Your task to perform on an android device: open app "Grab" Image 0: 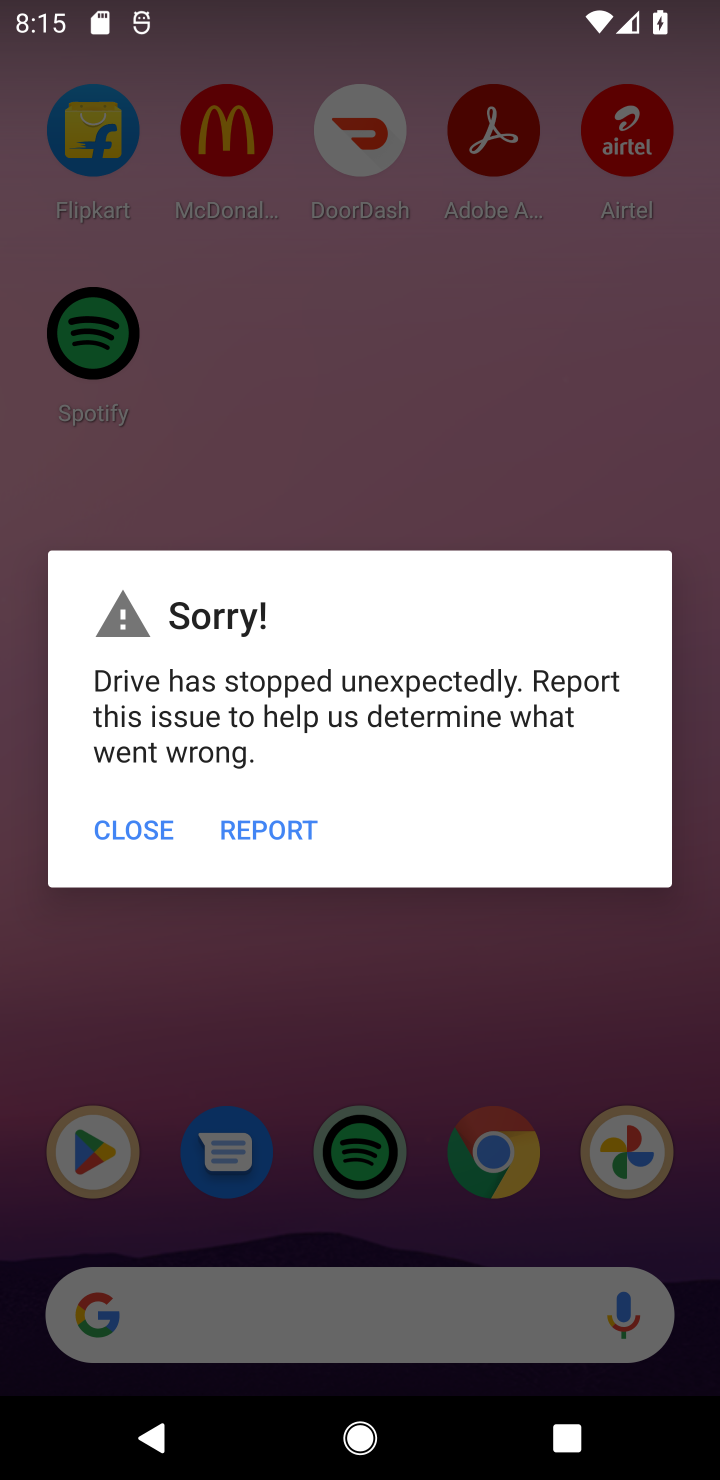
Step 0: press home button
Your task to perform on an android device: open app "Grab" Image 1: 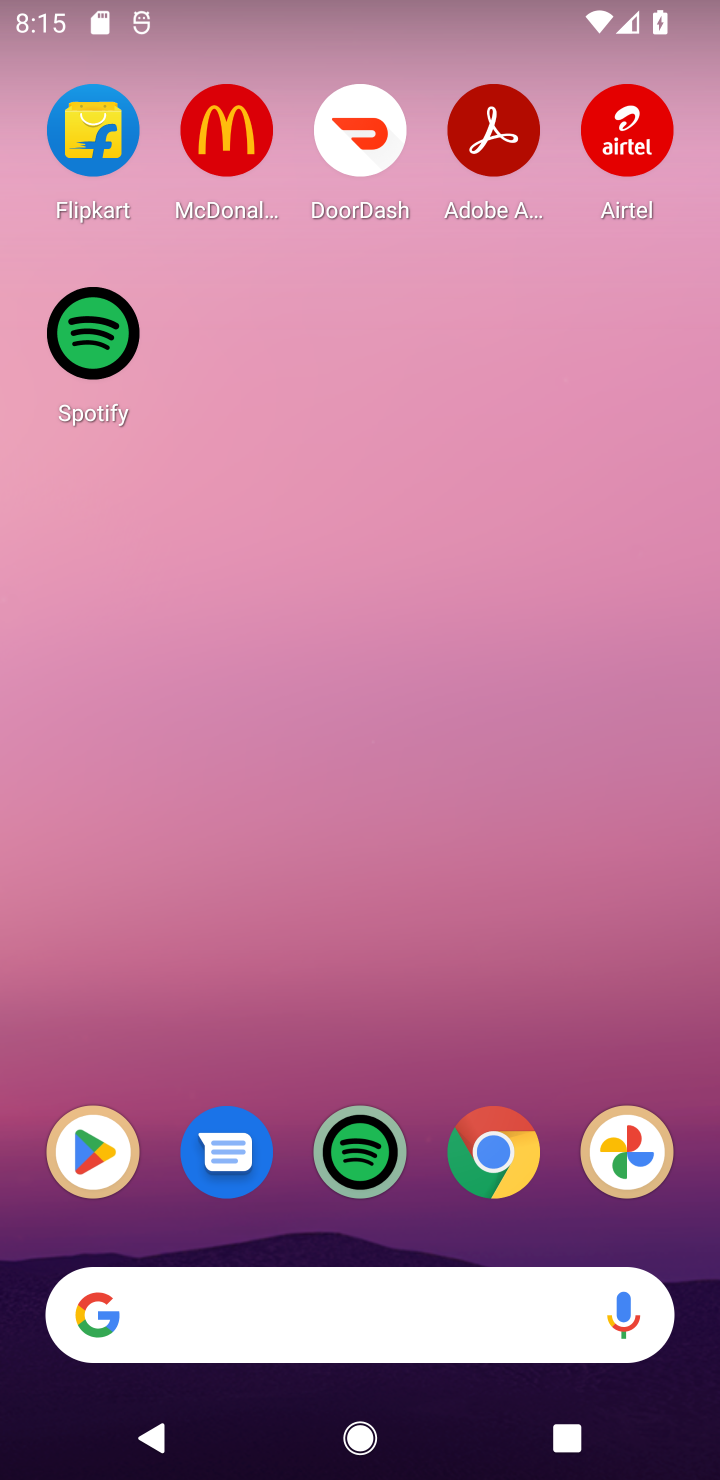
Step 1: click (104, 1151)
Your task to perform on an android device: open app "Grab" Image 2: 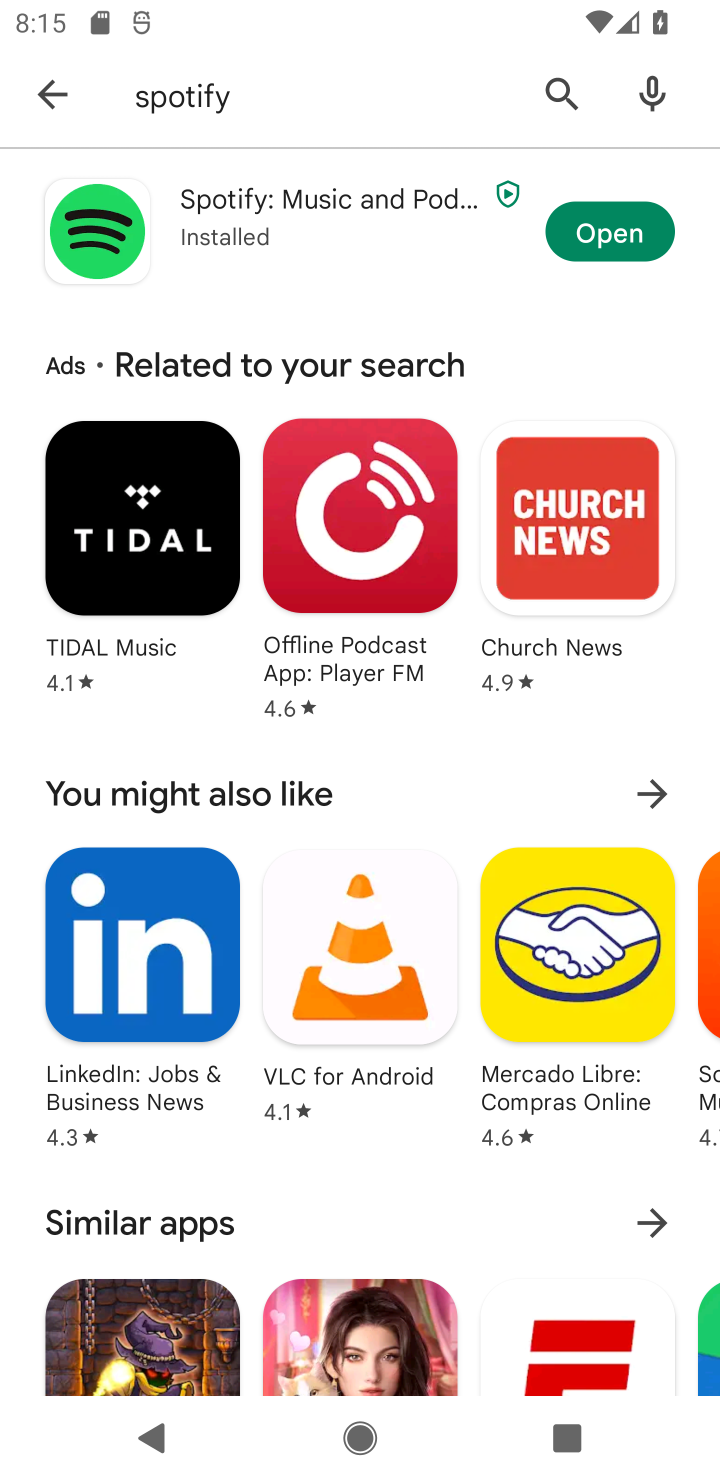
Step 2: click (50, 129)
Your task to perform on an android device: open app "Grab" Image 3: 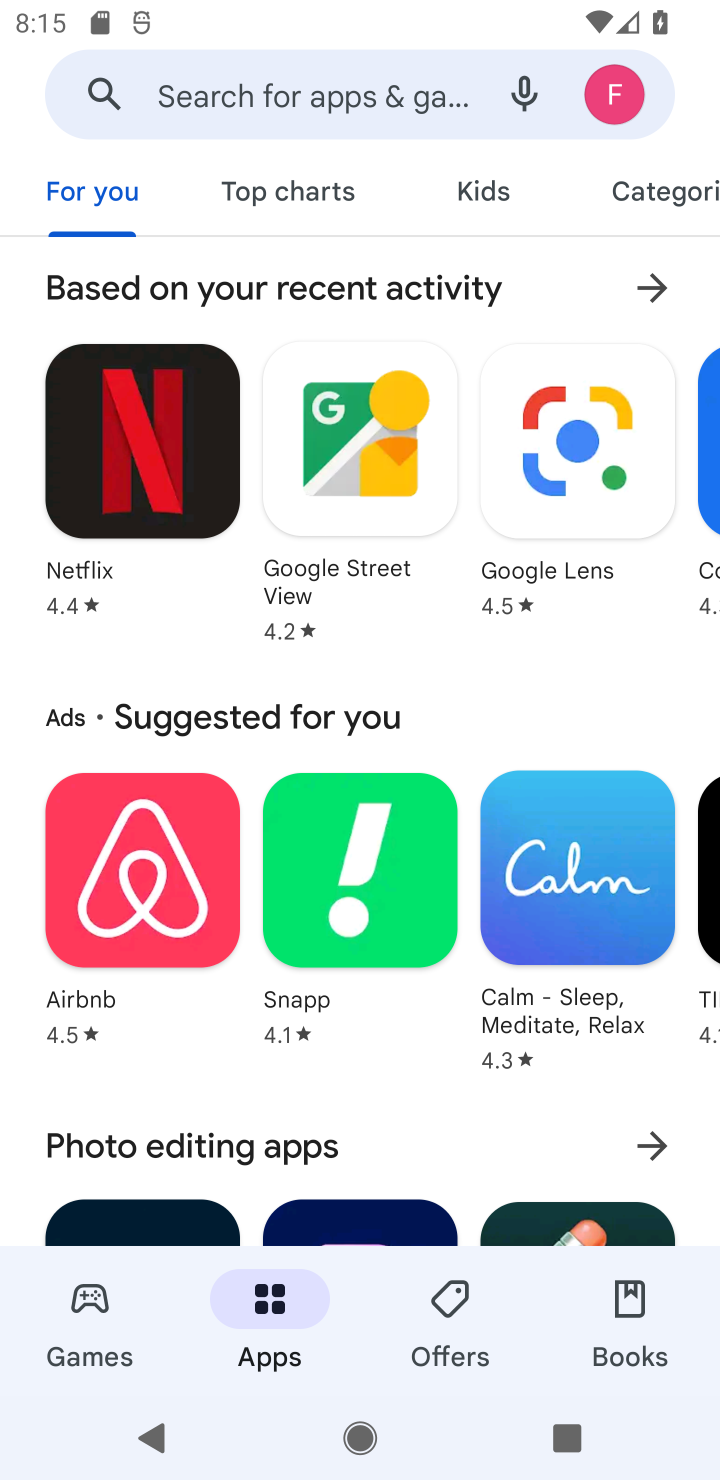
Step 3: click (287, 113)
Your task to perform on an android device: open app "Grab" Image 4: 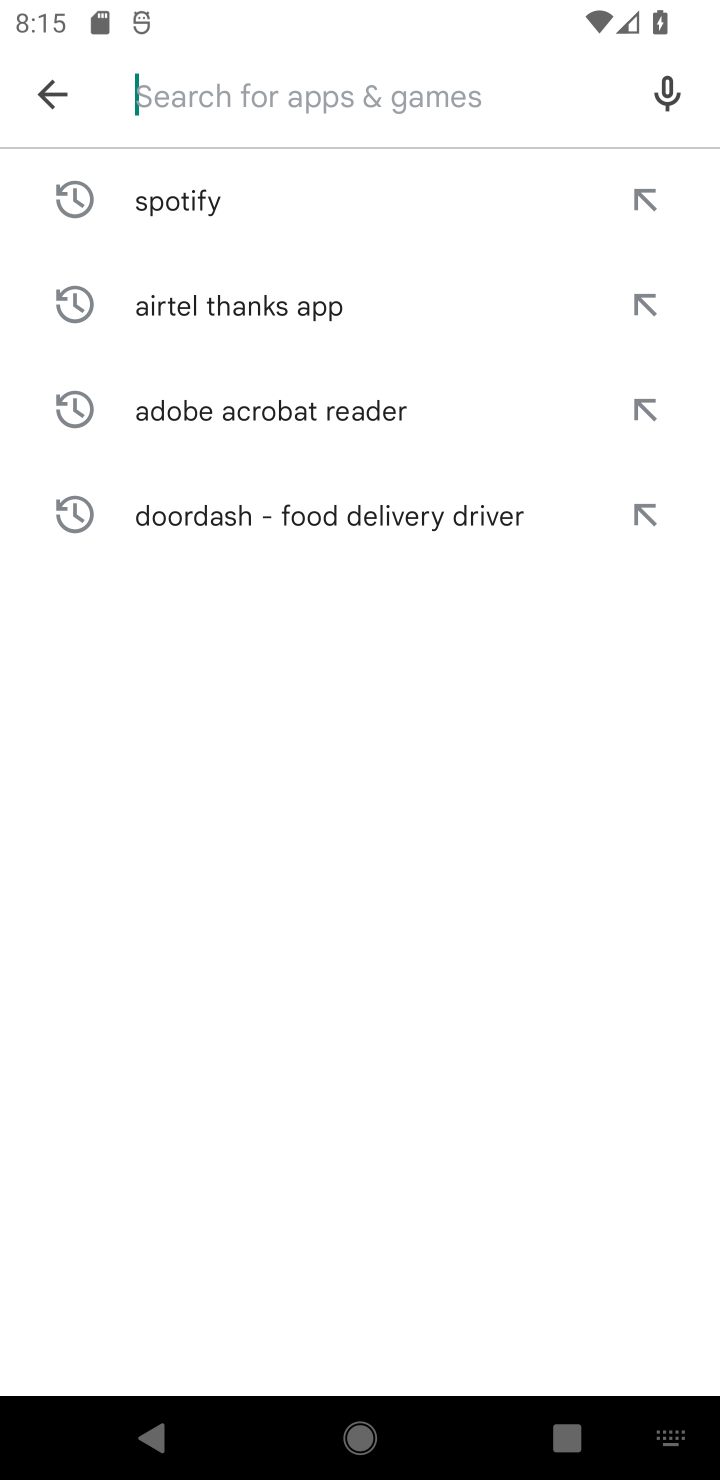
Step 4: type "Grab"
Your task to perform on an android device: open app "Grab" Image 5: 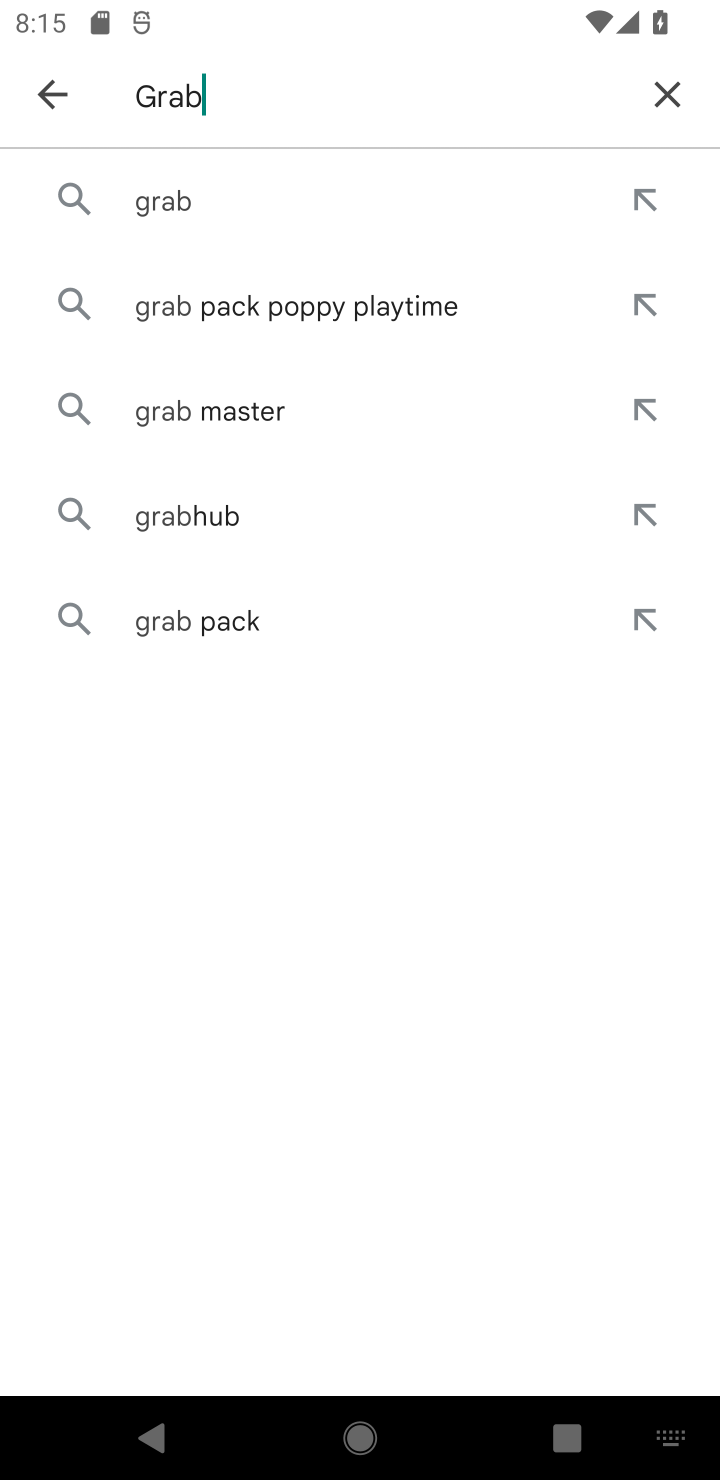
Step 5: click (160, 200)
Your task to perform on an android device: open app "Grab" Image 6: 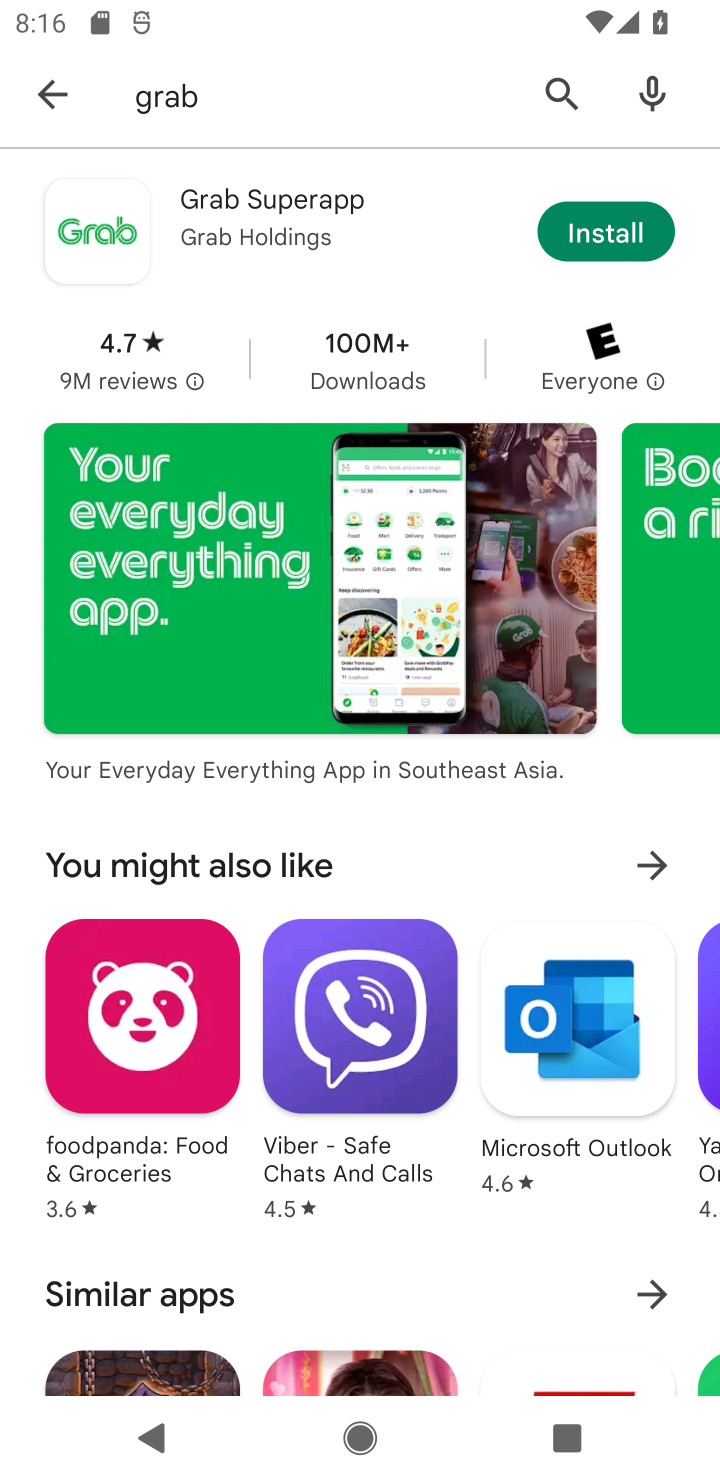
Step 6: click (593, 226)
Your task to perform on an android device: open app "Grab" Image 7: 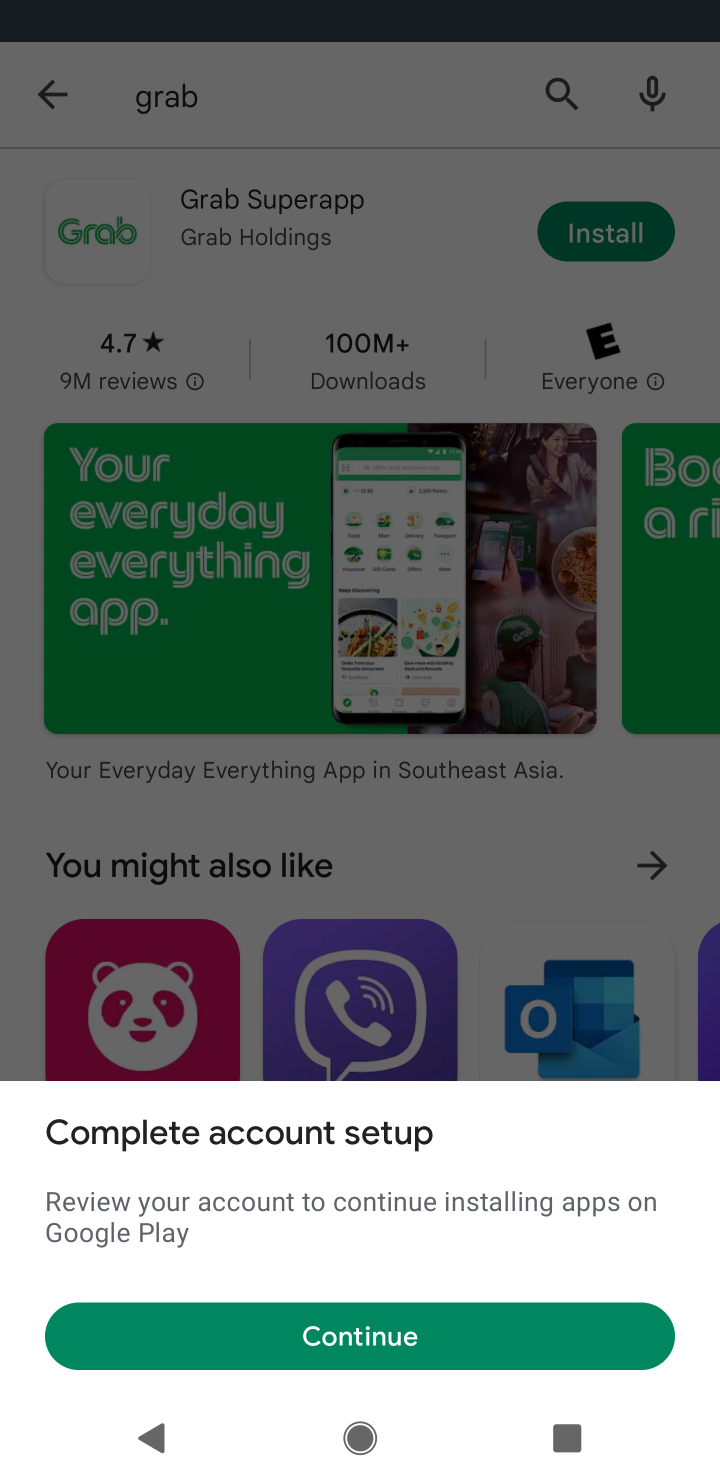
Step 7: click (593, 226)
Your task to perform on an android device: open app "Grab" Image 8: 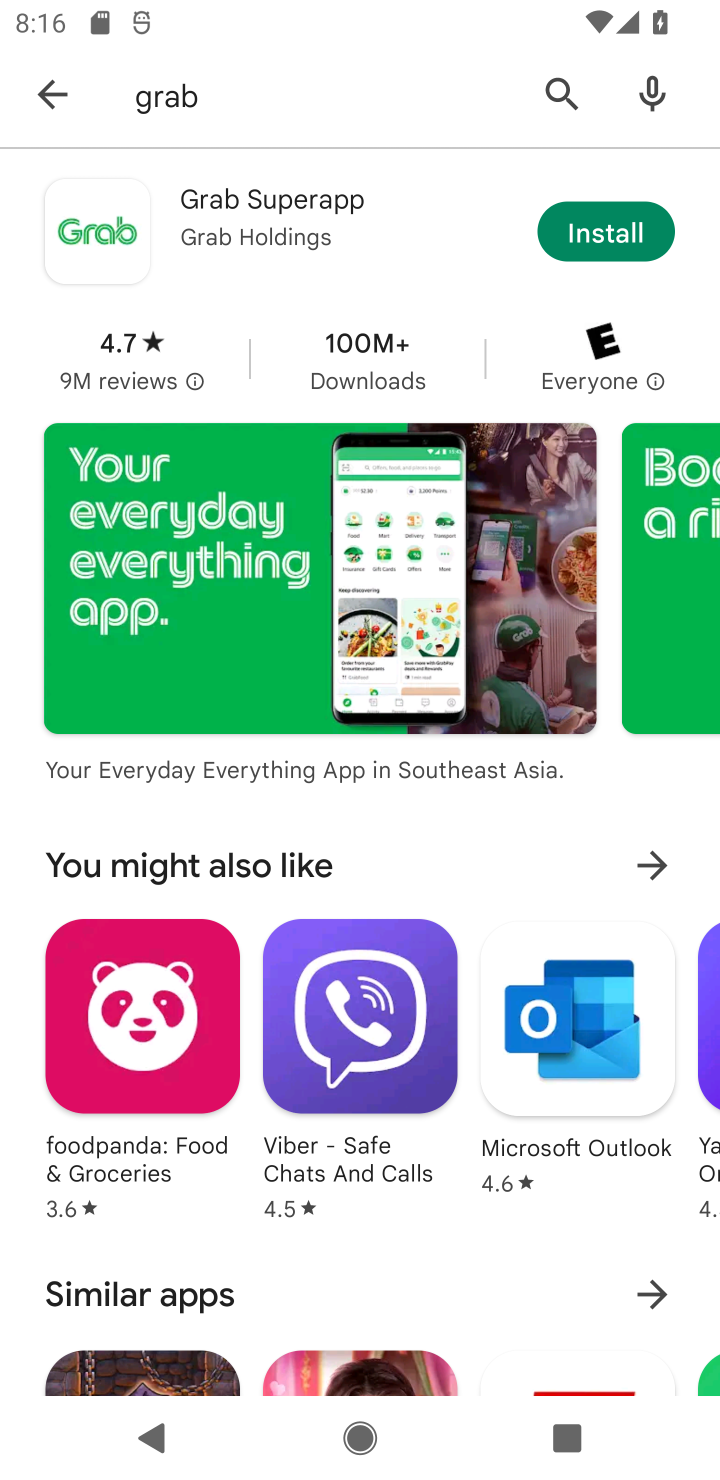
Step 8: click (593, 226)
Your task to perform on an android device: open app "Grab" Image 9: 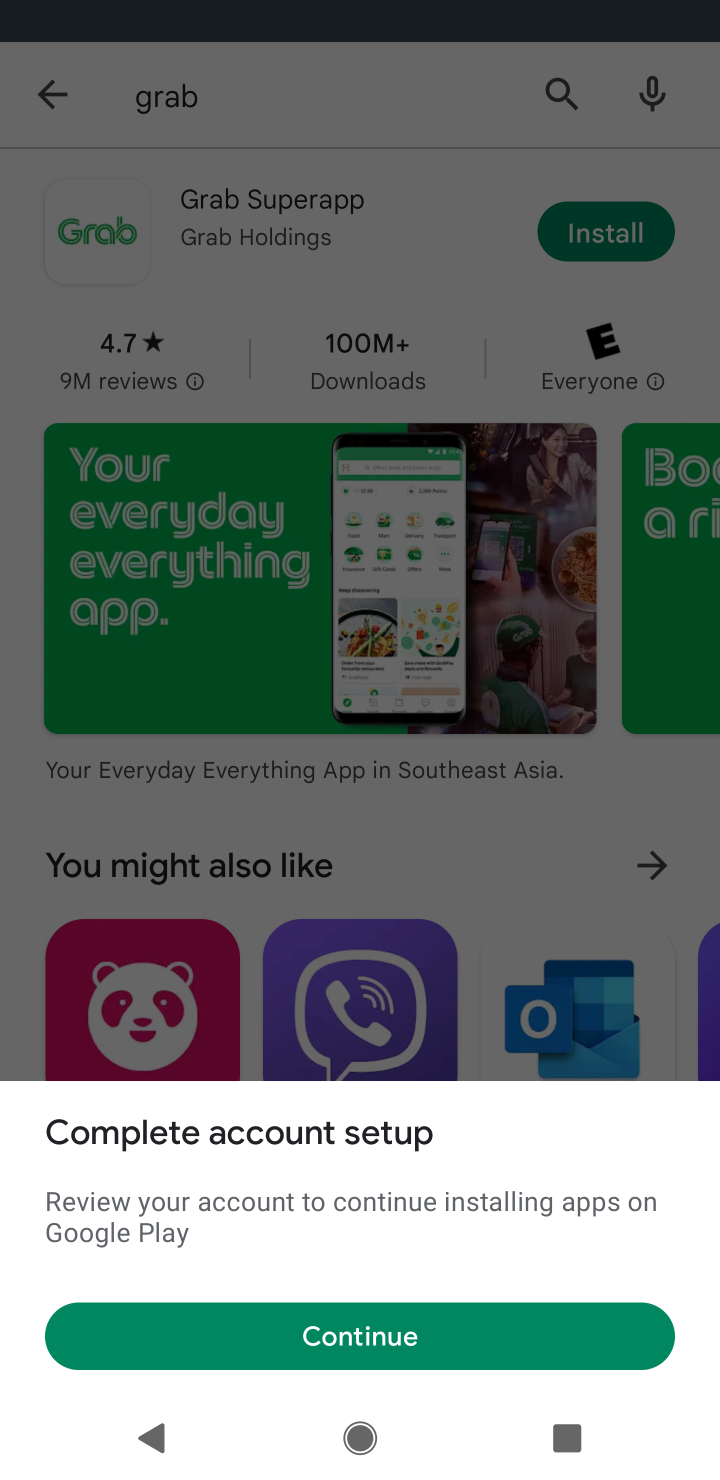
Step 9: click (321, 1331)
Your task to perform on an android device: open app "Grab" Image 10: 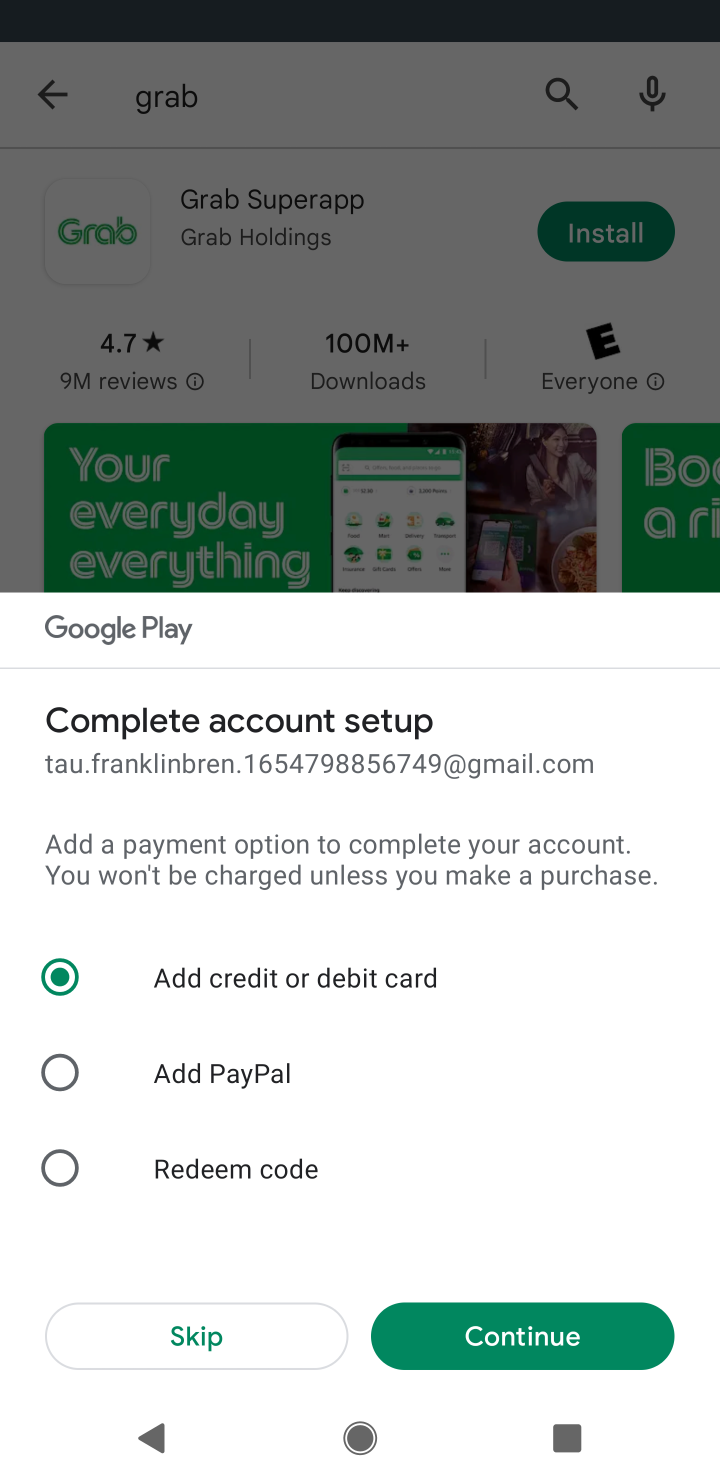
Step 10: click (182, 1327)
Your task to perform on an android device: open app "Grab" Image 11: 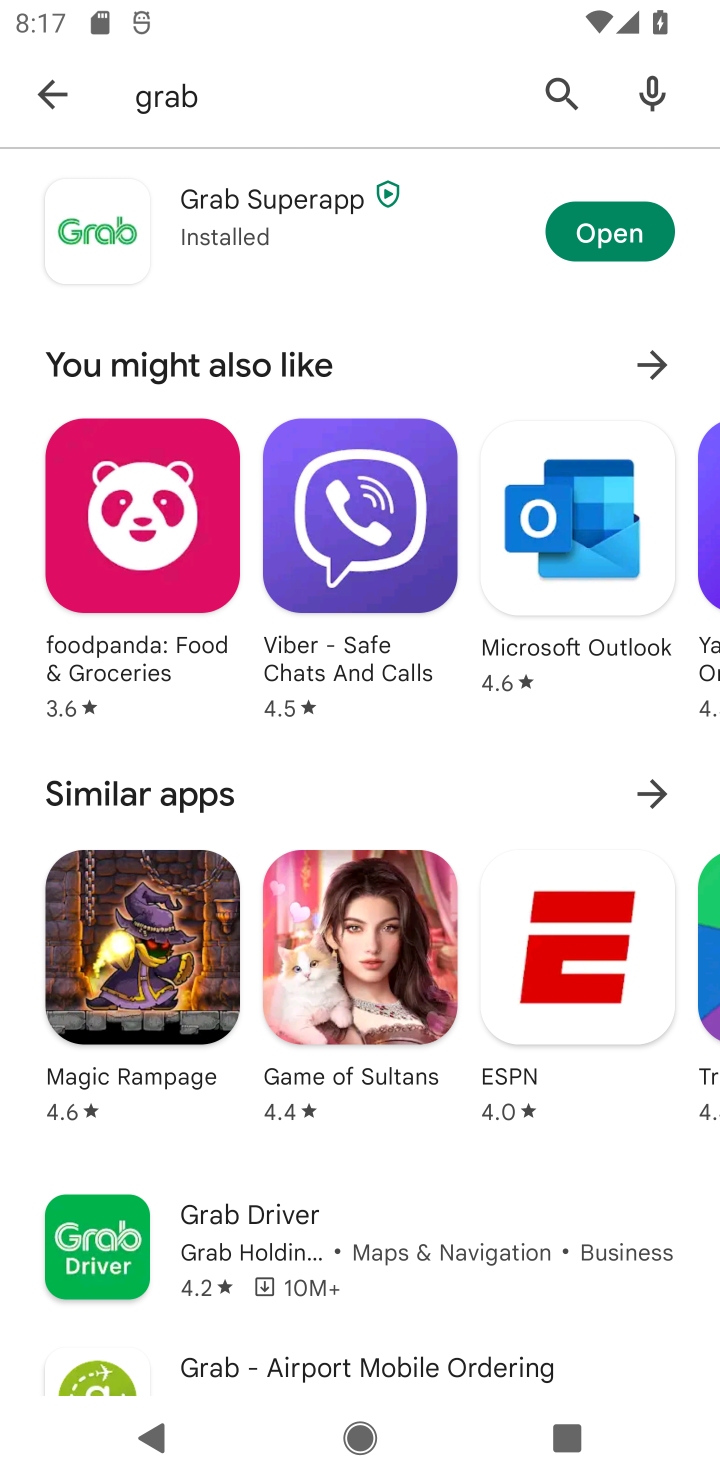
Step 11: click (625, 217)
Your task to perform on an android device: open app "Grab" Image 12: 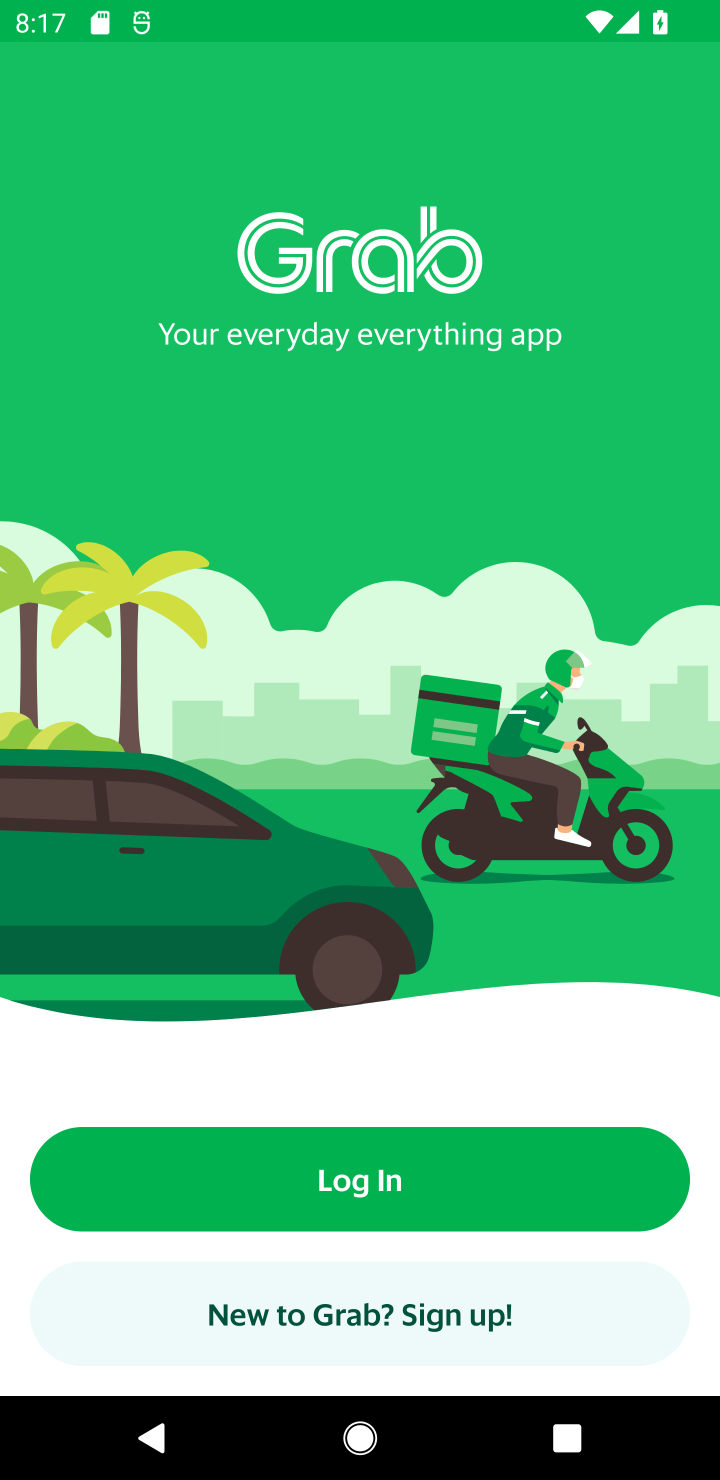
Step 12: task complete